Your task to perform on an android device: When is my next appointment? Image 0: 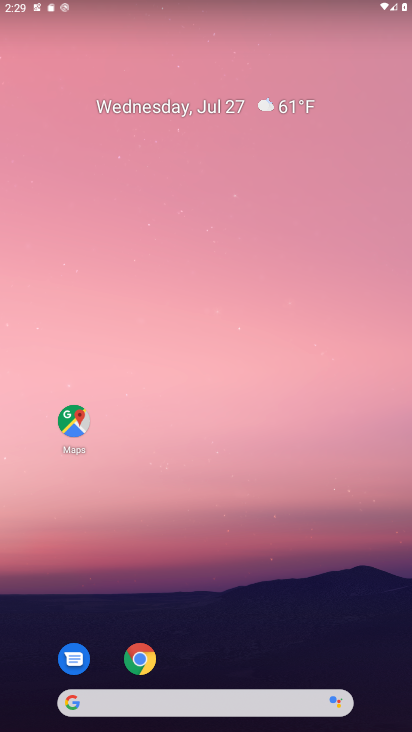
Step 0: drag from (216, 710) to (261, 218)
Your task to perform on an android device: When is my next appointment? Image 1: 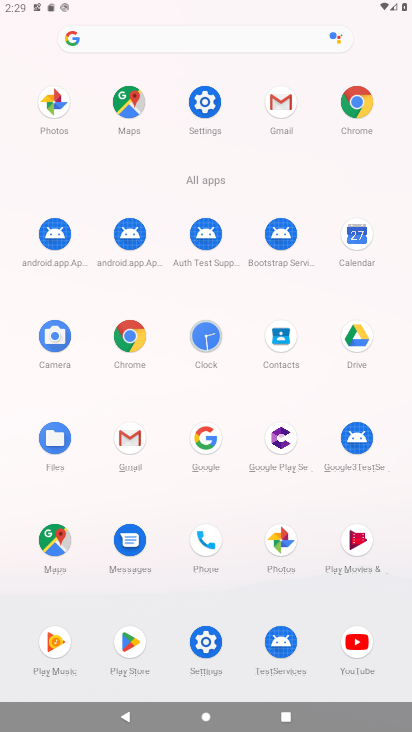
Step 1: click (366, 246)
Your task to perform on an android device: When is my next appointment? Image 2: 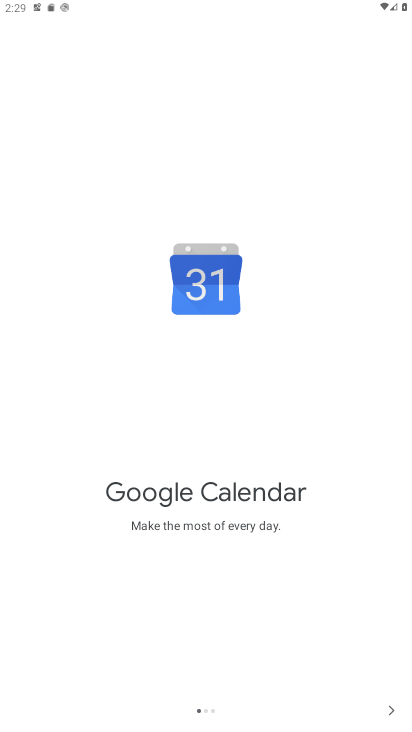
Step 2: click (389, 710)
Your task to perform on an android device: When is my next appointment? Image 3: 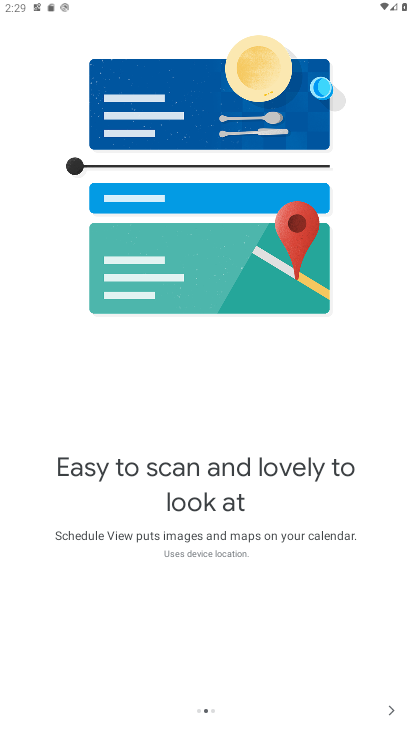
Step 3: click (389, 710)
Your task to perform on an android device: When is my next appointment? Image 4: 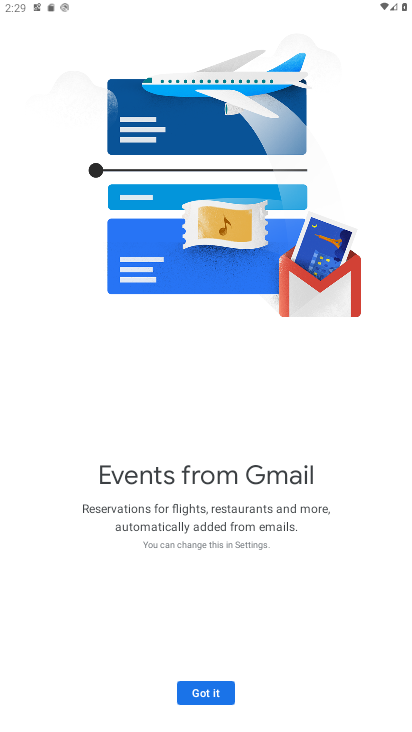
Step 4: click (195, 689)
Your task to perform on an android device: When is my next appointment? Image 5: 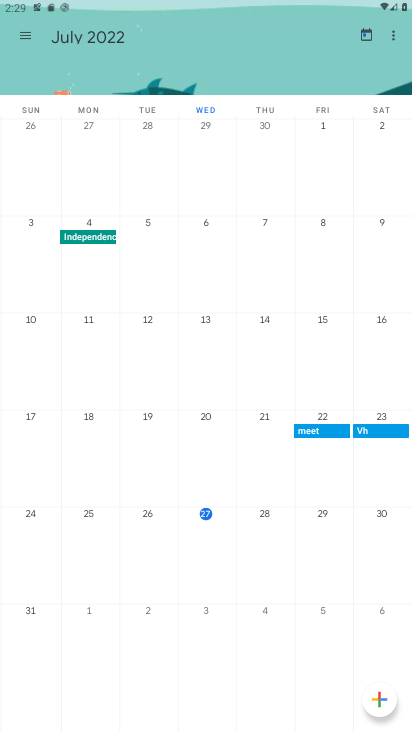
Step 5: click (23, 39)
Your task to perform on an android device: When is my next appointment? Image 6: 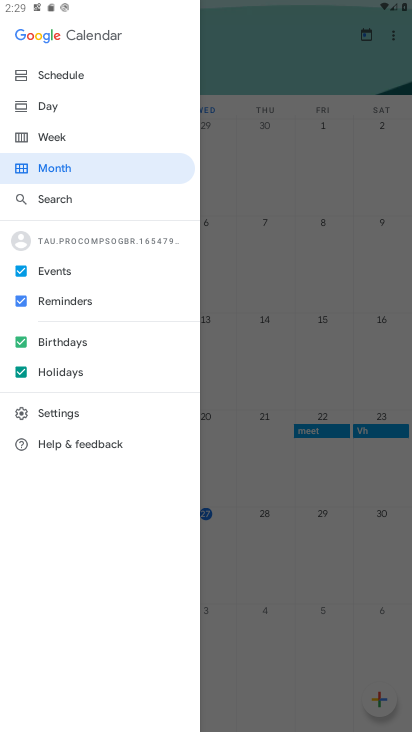
Step 6: click (86, 75)
Your task to perform on an android device: When is my next appointment? Image 7: 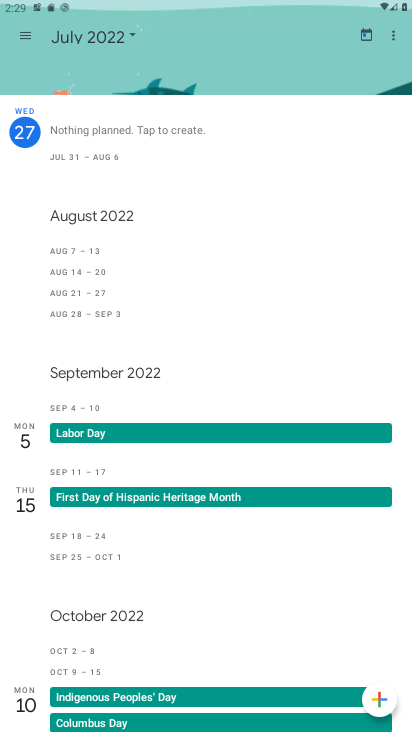
Step 7: task complete